Your task to perform on an android device: Turn on the flashlight Image 0: 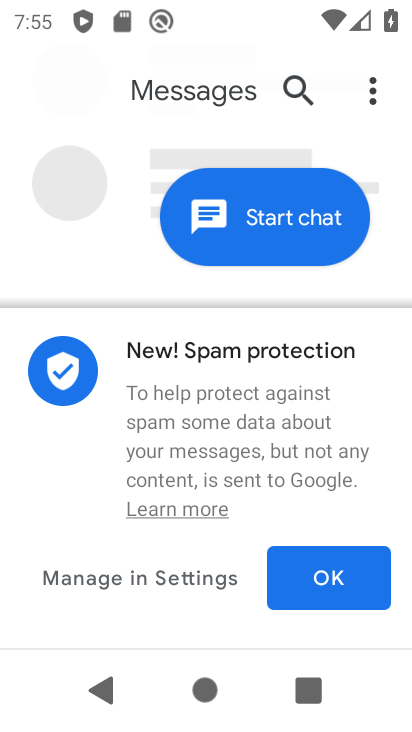
Step 0: press home button
Your task to perform on an android device: Turn on the flashlight Image 1: 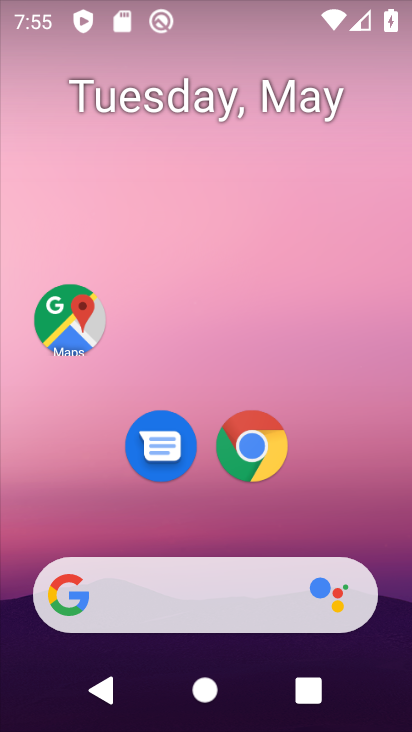
Step 1: task complete